Your task to perform on an android device: Search for Mexican restaurants on Maps Image 0: 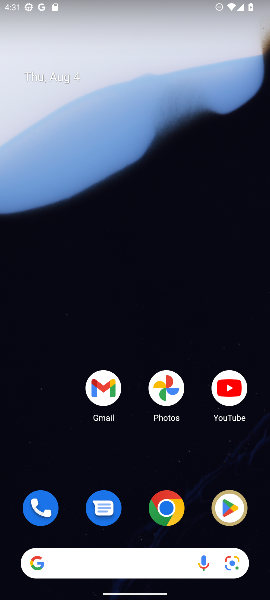
Step 0: drag from (124, 538) to (126, 181)
Your task to perform on an android device: Search for Mexican restaurants on Maps Image 1: 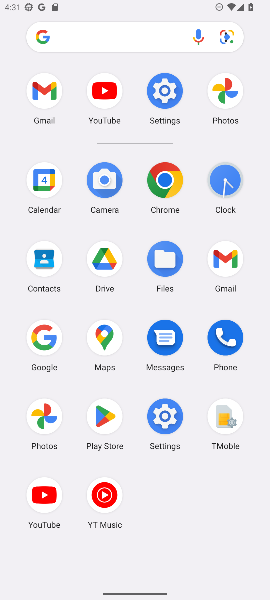
Step 1: click (97, 346)
Your task to perform on an android device: Search for Mexican restaurants on Maps Image 2: 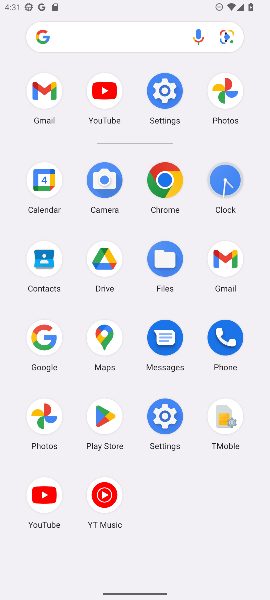
Step 2: click (97, 346)
Your task to perform on an android device: Search for Mexican restaurants on Maps Image 3: 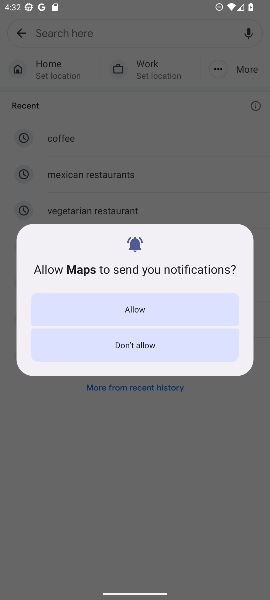
Step 3: click (117, 301)
Your task to perform on an android device: Search for Mexican restaurants on Maps Image 4: 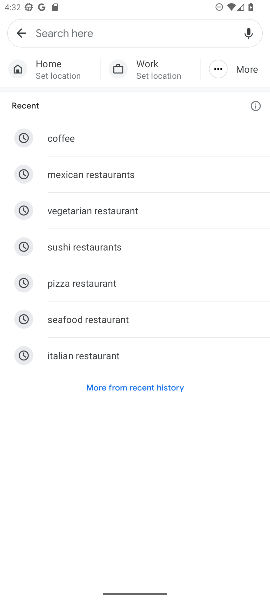
Step 4: click (87, 168)
Your task to perform on an android device: Search for Mexican restaurants on Maps Image 5: 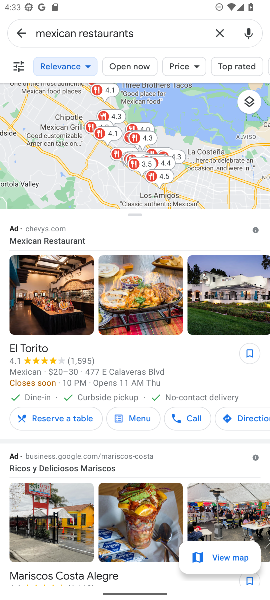
Step 5: task complete